Your task to perform on an android device: stop showing notifications on the lock screen Image 0: 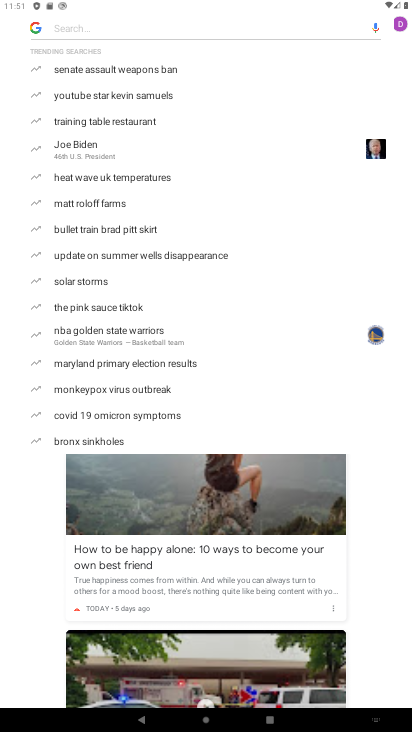
Step 0: press home button
Your task to perform on an android device: stop showing notifications on the lock screen Image 1: 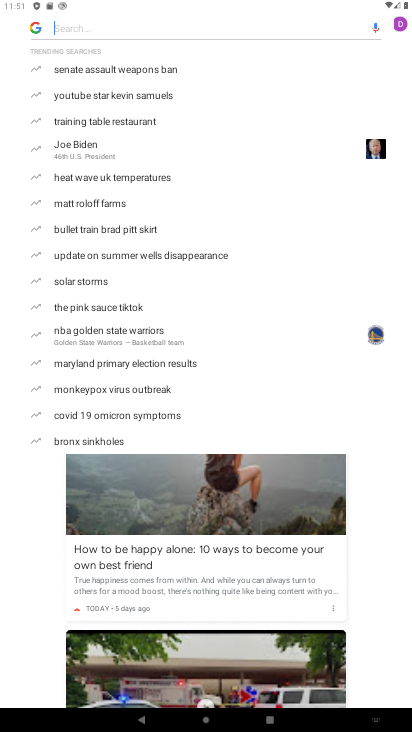
Step 1: drag from (107, 587) to (17, 19)
Your task to perform on an android device: stop showing notifications on the lock screen Image 2: 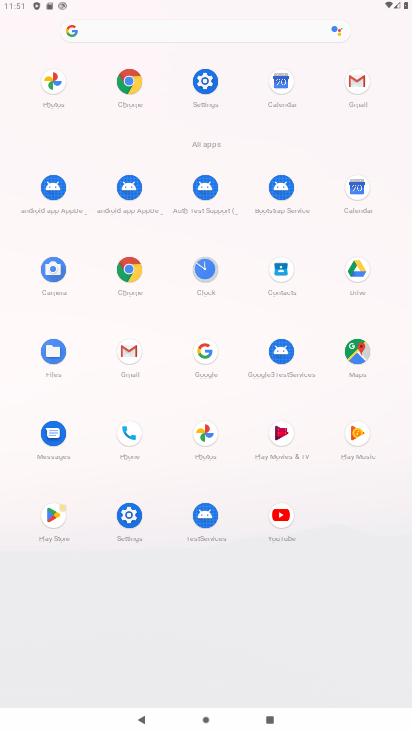
Step 2: click (221, 79)
Your task to perform on an android device: stop showing notifications on the lock screen Image 3: 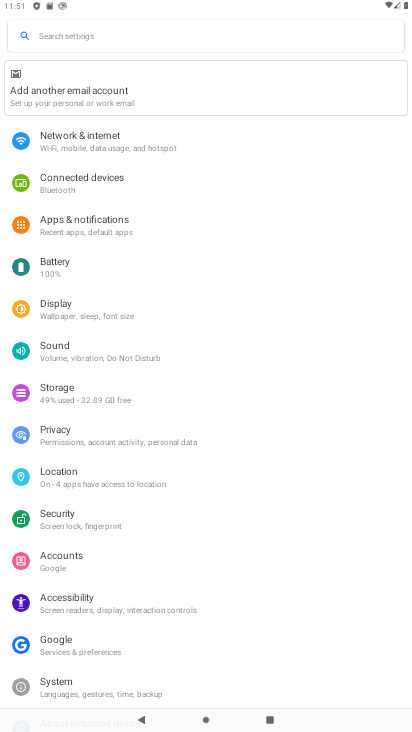
Step 3: click (101, 236)
Your task to perform on an android device: stop showing notifications on the lock screen Image 4: 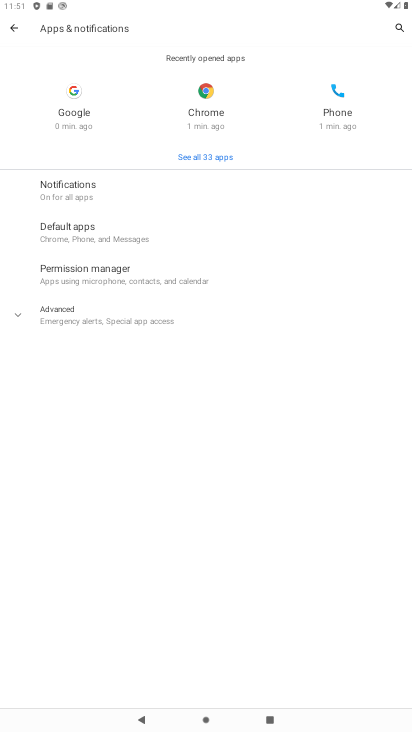
Step 4: click (72, 198)
Your task to perform on an android device: stop showing notifications on the lock screen Image 5: 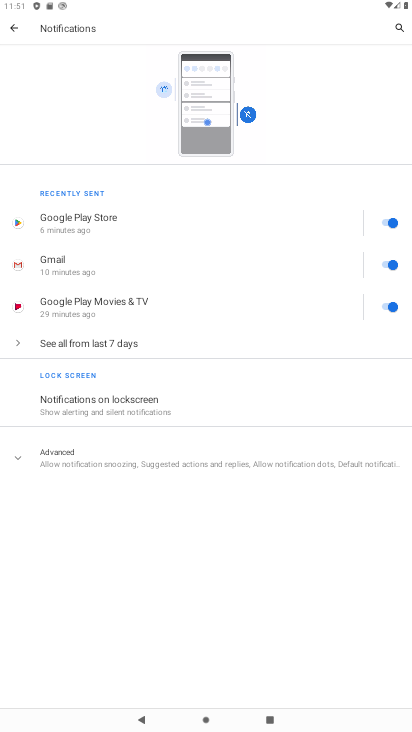
Step 5: click (75, 418)
Your task to perform on an android device: stop showing notifications on the lock screen Image 6: 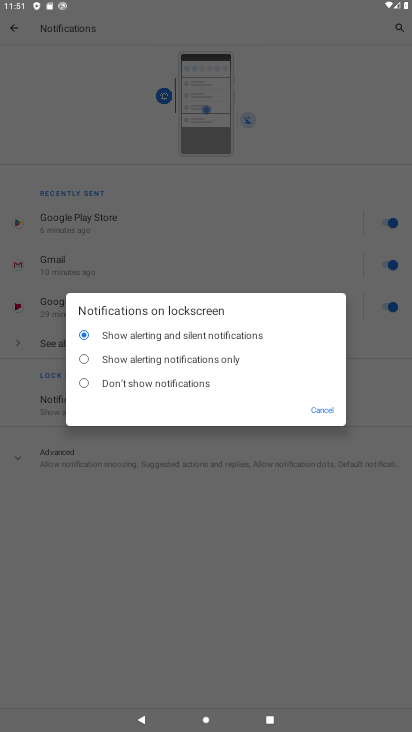
Step 6: click (128, 389)
Your task to perform on an android device: stop showing notifications on the lock screen Image 7: 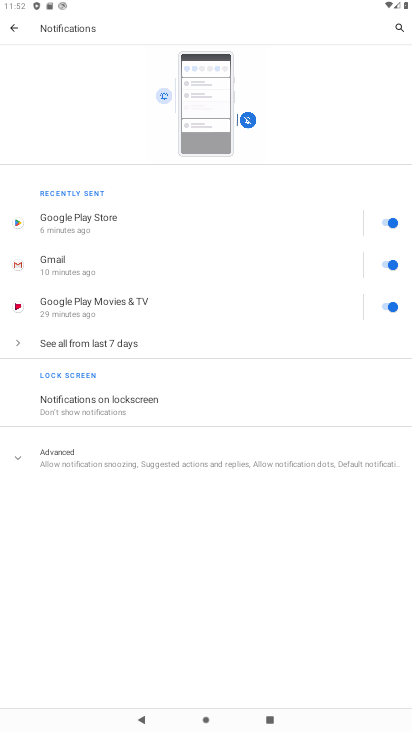
Step 7: task complete